Your task to perform on an android device: create a new album in the google photos Image 0: 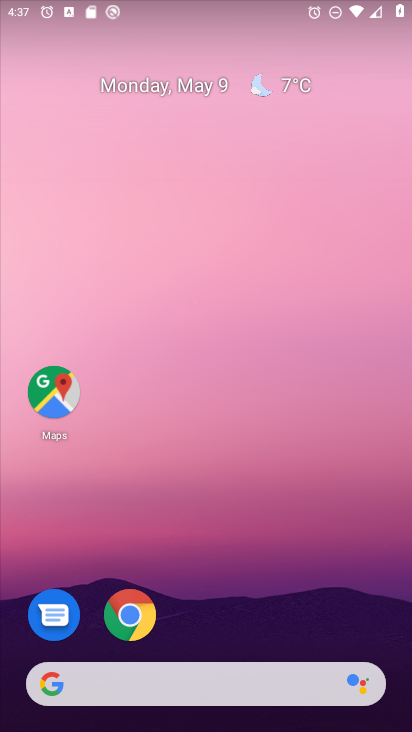
Step 0: drag from (373, 631) to (304, 80)
Your task to perform on an android device: create a new album in the google photos Image 1: 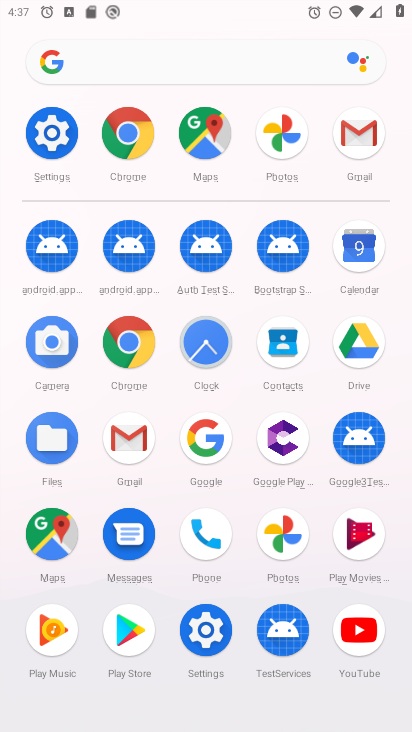
Step 1: click (284, 532)
Your task to perform on an android device: create a new album in the google photos Image 2: 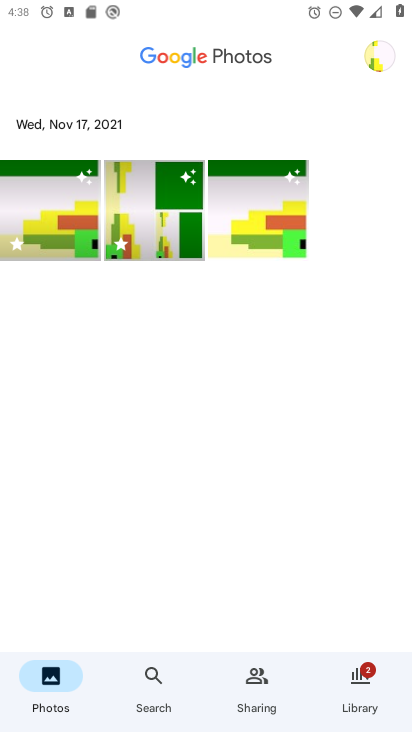
Step 2: click (347, 682)
Your task to perform on an android device: create a new album in the google photos Image 3: 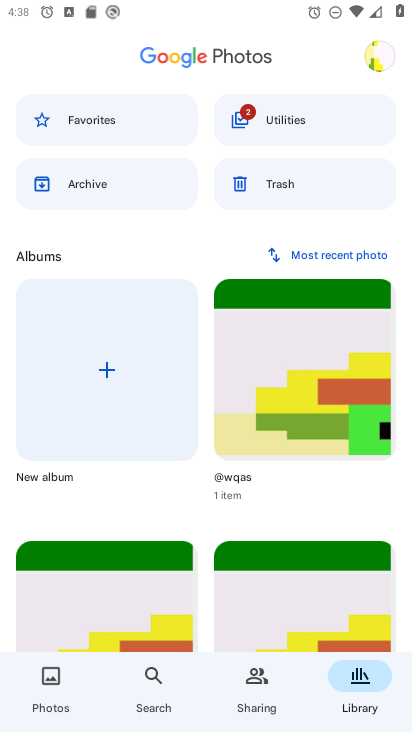
Step 3: click (104, 368)
Your task to perform on an android device: create a new album in the google photos Image 4: 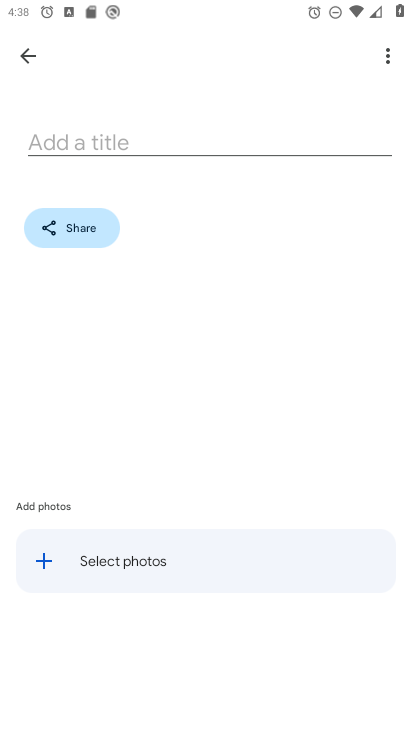
Step 4: click (76, 139)
Your task to perform on an android device: create a new album in the google photos Image 5: 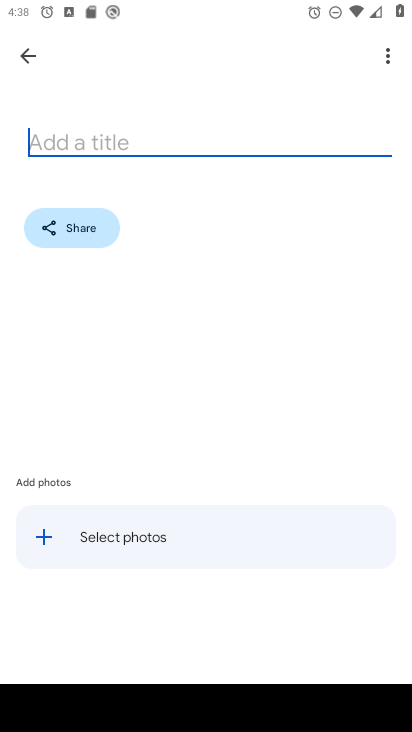
Step 5: type "utyrr"
Your task to perform on an android device: create a new album in the google photos Image 6: 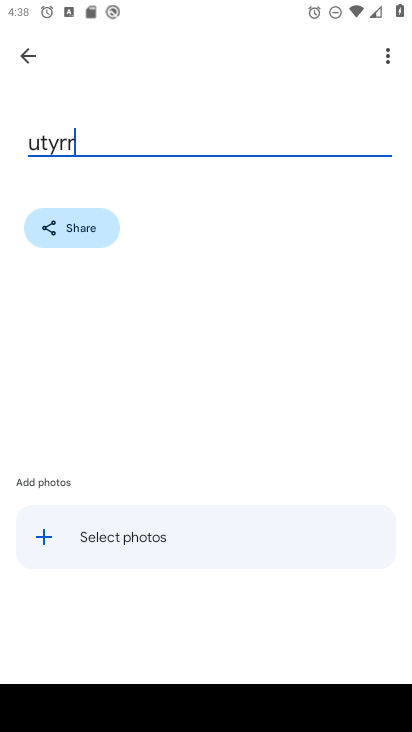
Step 6: click (37, 532)
Your task to perform on an android device: create a new album in the google photos Image 7: 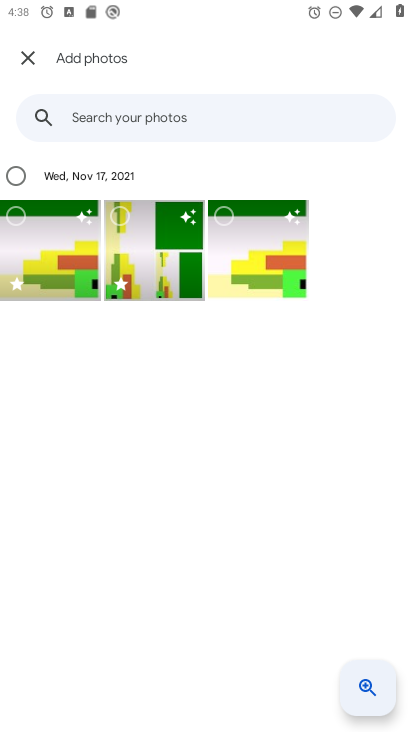
Step 7: click (13, 215)
Your task to perform on an android device: create a new album in the google photos Image 8: 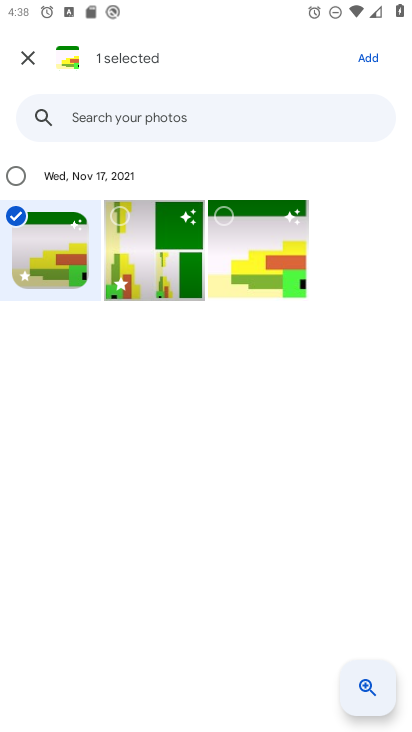
Step 8: click (119, 214)
Your task to perform on an android device: create a new album in the google photos Image 9: 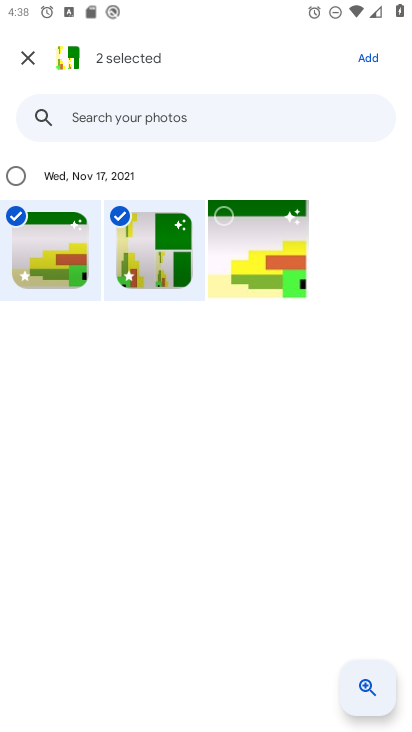
Step 9: click (361, 59)
Your task to perform on an android device: create a new album in the google photos Image 10: 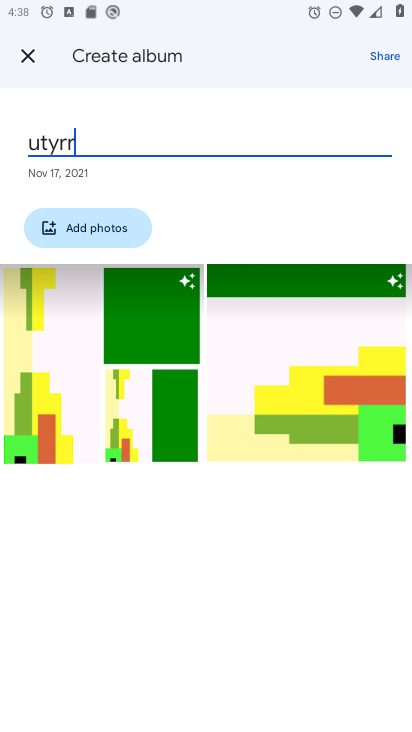
Step 10: task complete